Your task to perform on an android device: turn on airplane mode Image 0: 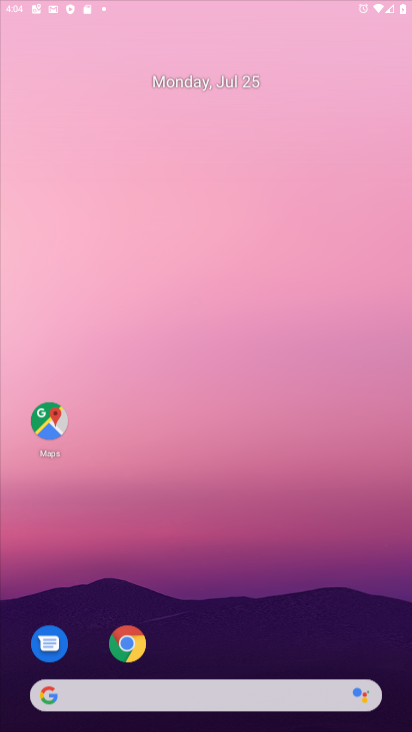
Step 0: press home button
Your task to perform on an android device: turn on airplane mode Image 1: 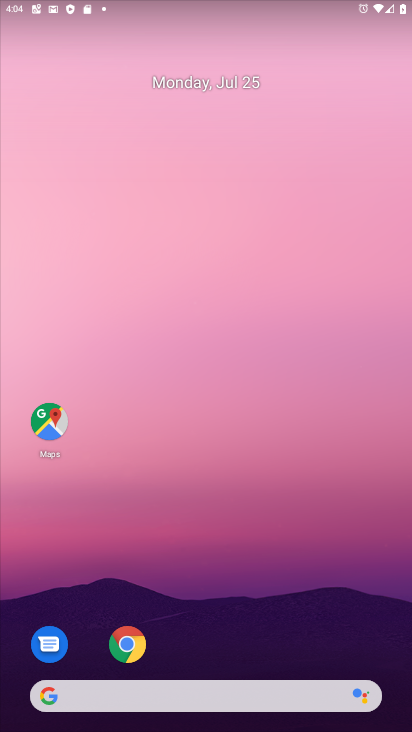
Step 1: drag from (312, 49) to (324, 589)
Your task to perform on an android device: turn on airplane mode Image 2: 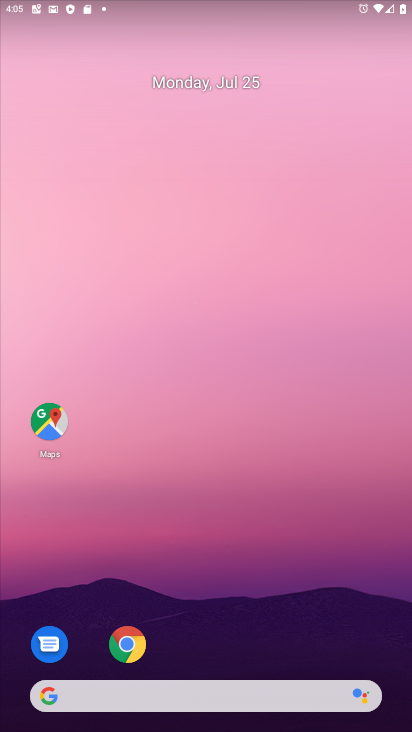
Step 2: drag from (310, 1) to (367, 548)
Your task to perform on an android device: turn on airplane mode Image 3: 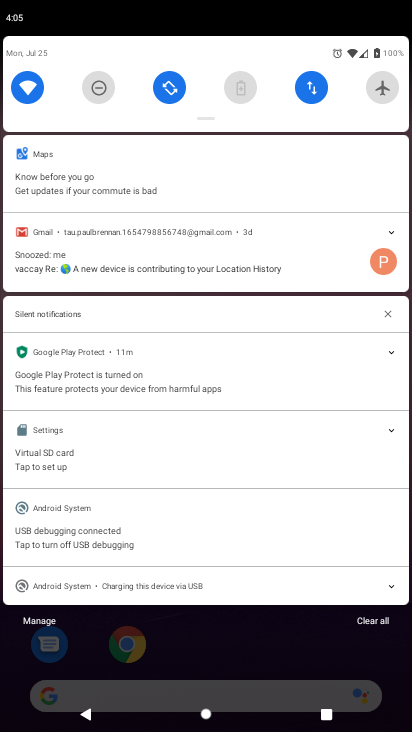
Step 3: click (389, 87)
Your task to perform on an android device: turn on airplane mode Image 4: 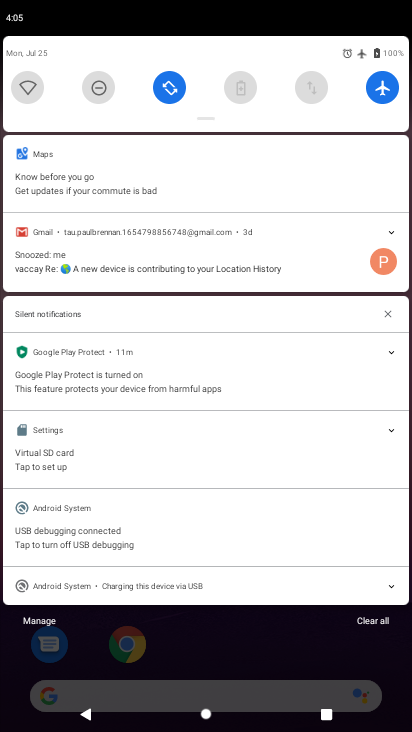
Step 4: task complete